Your task to perform on an android device: toggle location history Image 0: 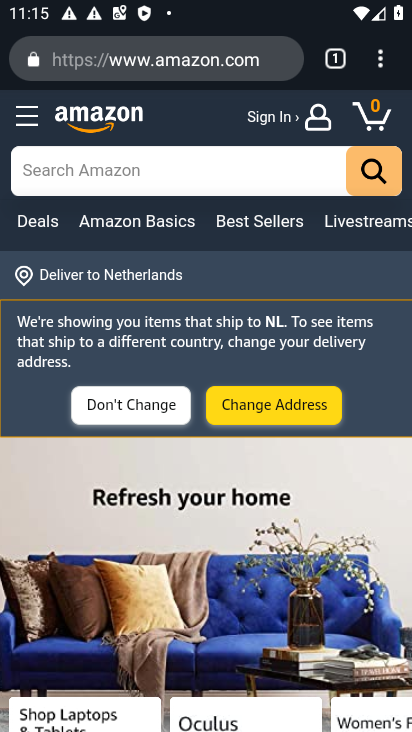
Step 0: press home button
Your task to perform on an android device: toggle location history Image 1: 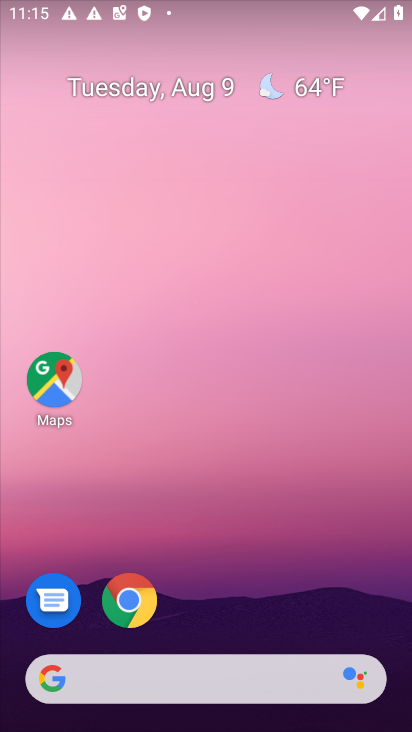
Step 1: drag from (12, 708) to (211, 248)
Your task to perform on an android device: toggle location history Image 2: 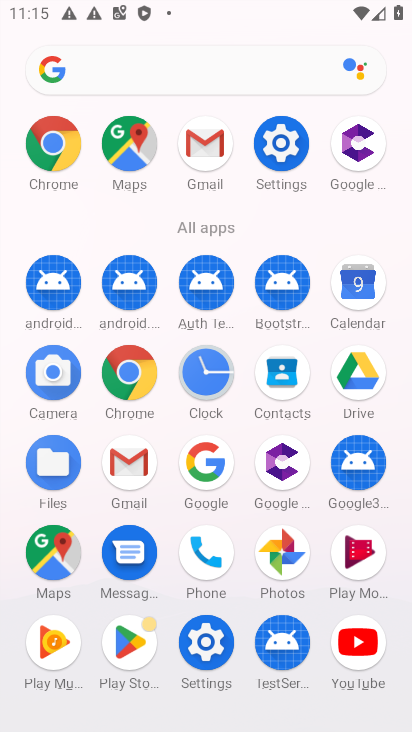
Step 2: click (217, 637)
Your task to perform on an android device: toggle location history Image 3: 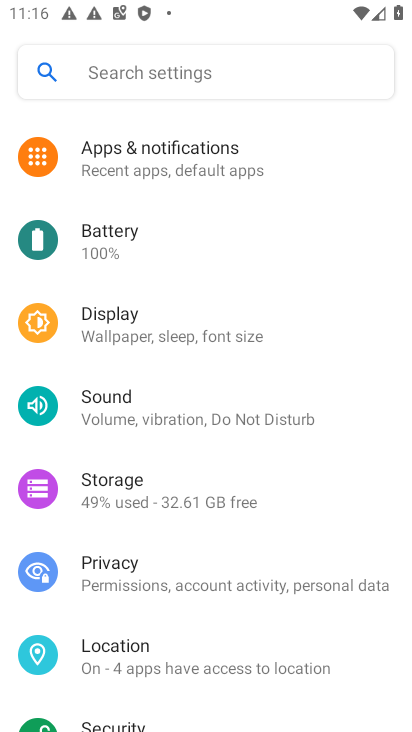
Step 3: click (206, 659)
Your task to perform on an android device: toggle location history Image 4: 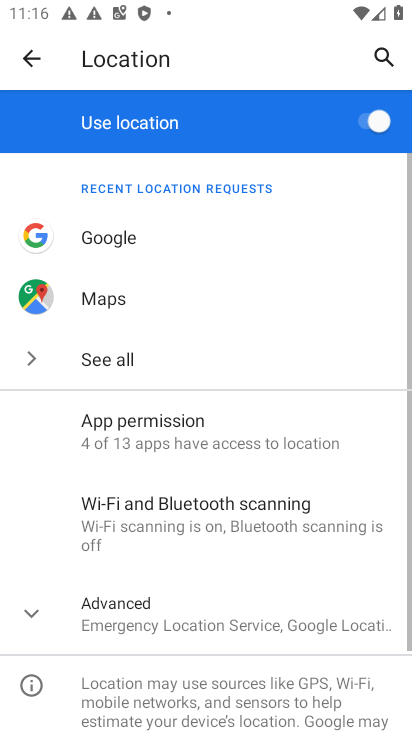
Step 4: click (187, 609)
Your task to perform on an android device: toggle location history Image 5: 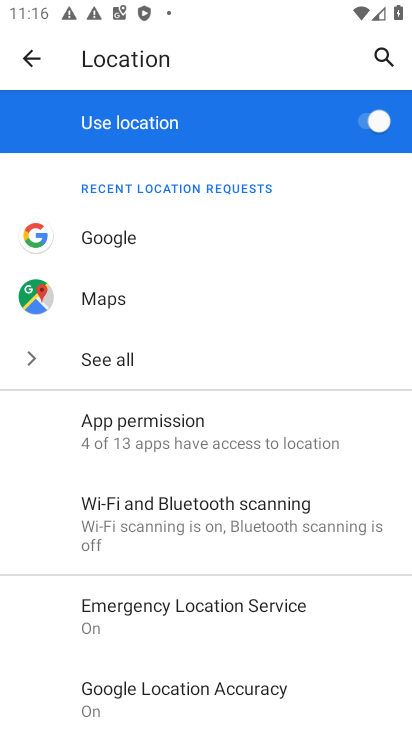
Step 5: drag from (323, 684) to (305, 378)
Your task to perform on an android device: toggle location history Image 6: 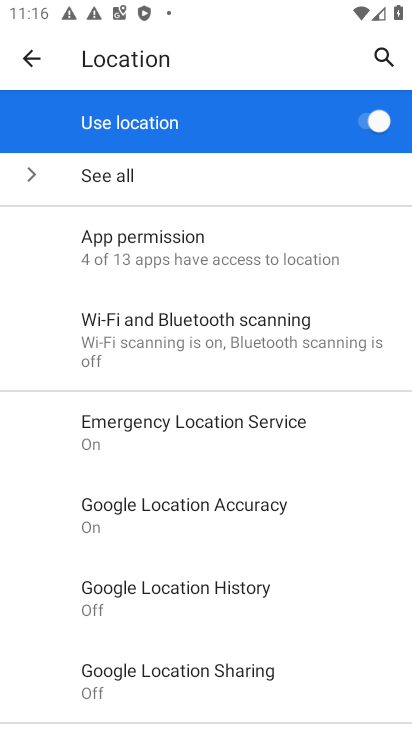
Step 6: click (208, 608)
Your task to perform on an android device: toggle location history Image 7: 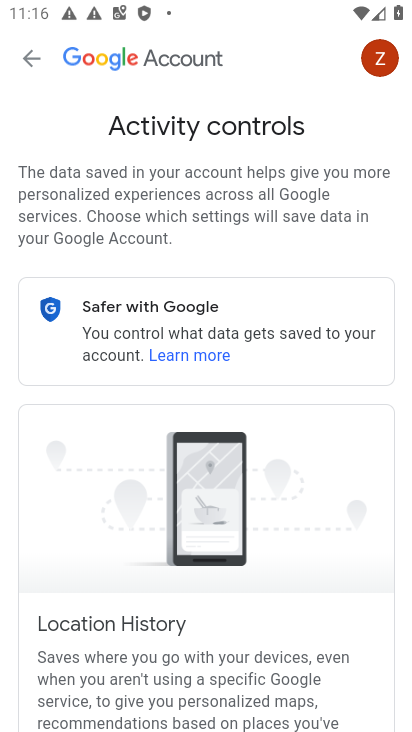
Step 7: drag from (369, 642) to (373, 269)
Your task to perform on an android device: toggle location history Image 8: 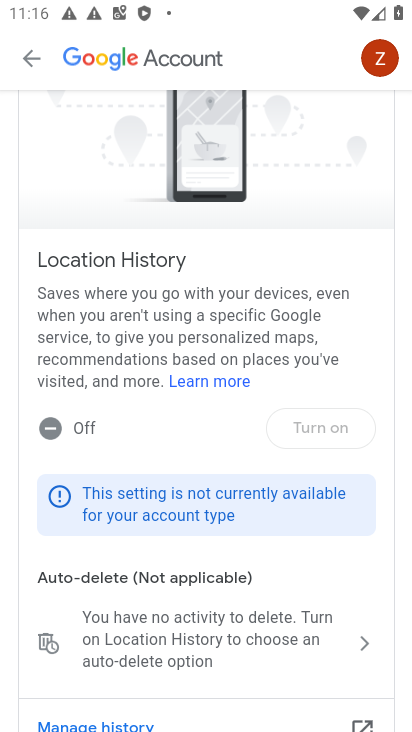
Step 8: click (319, 432)
Your task to perform on an android device: toggle location history Image 9: 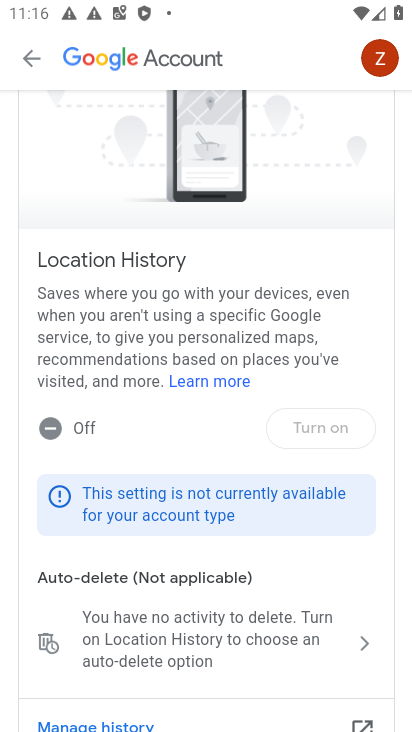
Step 9: task complete